Your task to perform on an android device: change keyboard looks Image 0: 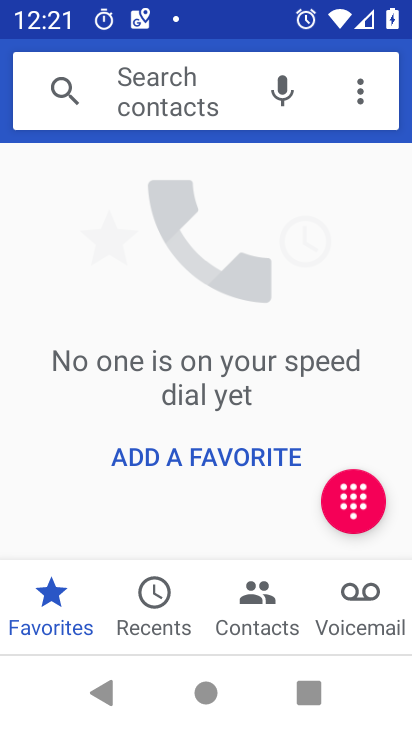
Step 0: press home button
Your task to perform on an android device: change keyboard looks Image 1: 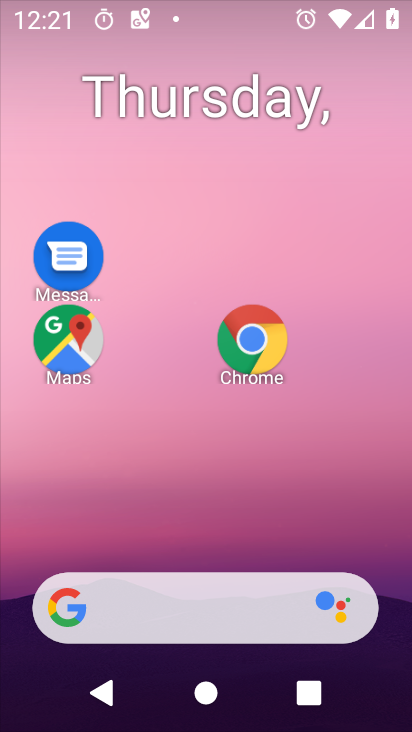
Step 1: drag from (198, 506) to (192, 59)
Your task to perform on an android device: change keyboard looks Image 2: 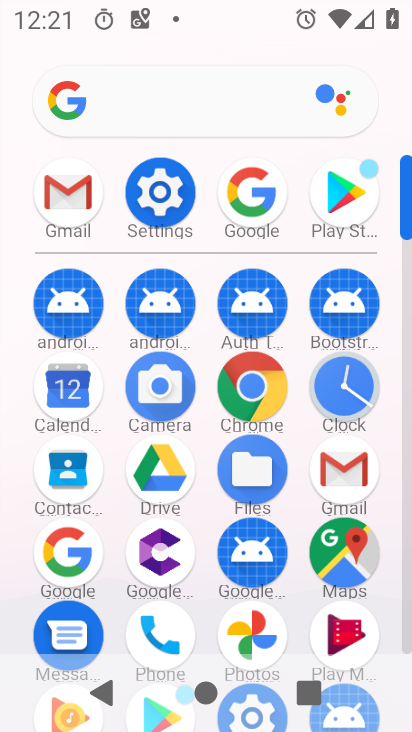
Step 2: click (141, 188)
Your task to perform on an android device: change keyboard looks Image 3: 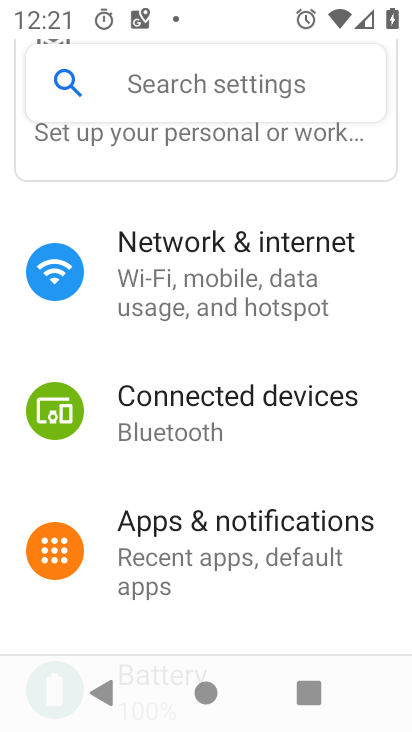
Step 3: drag from (275, 562) to (295, 35)
Your task to perform on an android device: change keyboard looks Image 4: 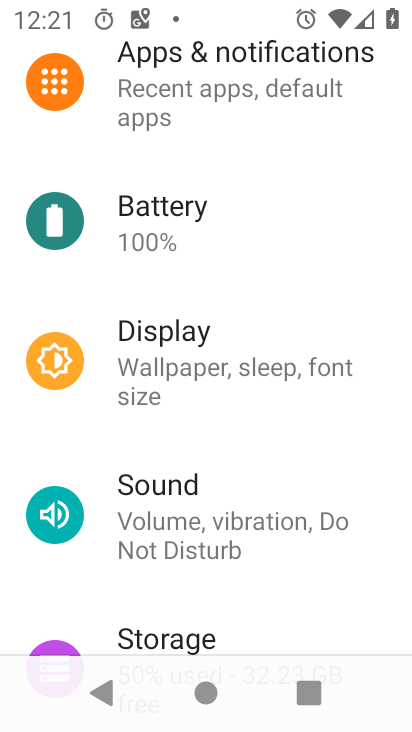
Step 4: drag from (274, 541) to (297, 24)
Your task to perform on an android device: change keyboard looks Image 5: 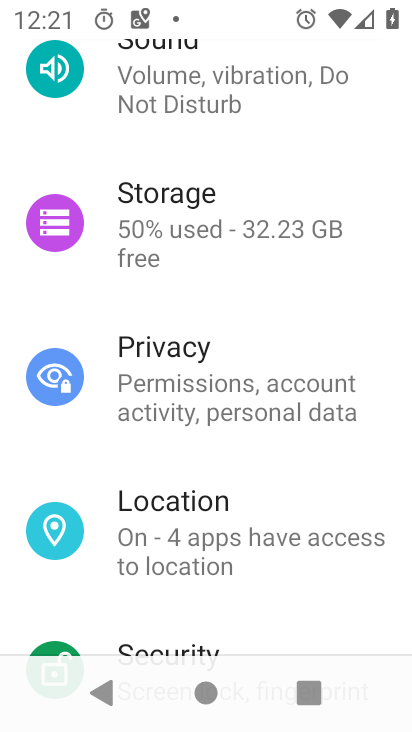
Step 5: drag from (235, 556) to (287, 97)
Your task to perform on an android device: change keyboard looks Image 6: 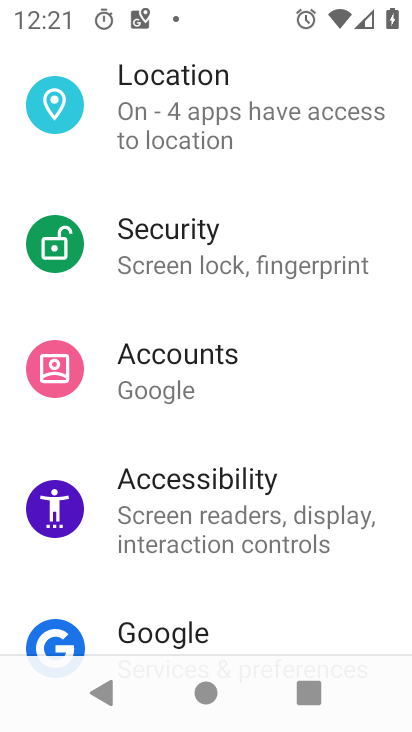
Step 6: drag from (229, 603) to (270, 107)
Your task to perform on an android device: change keyboard looks Image 7: 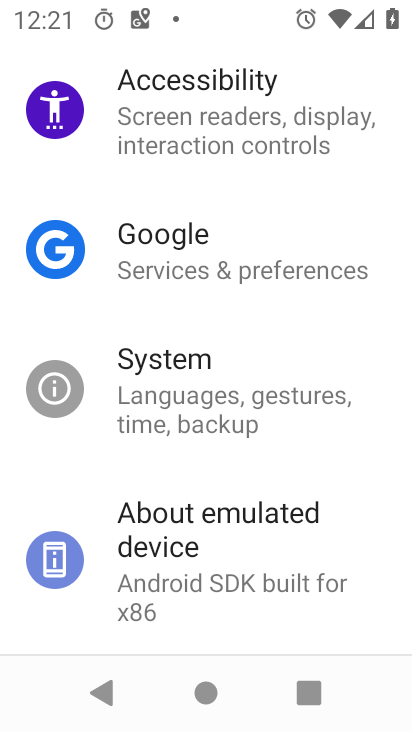
Step 7: click (210, 386)
Your task to perform on an android device: change keyboard looks Image 8: 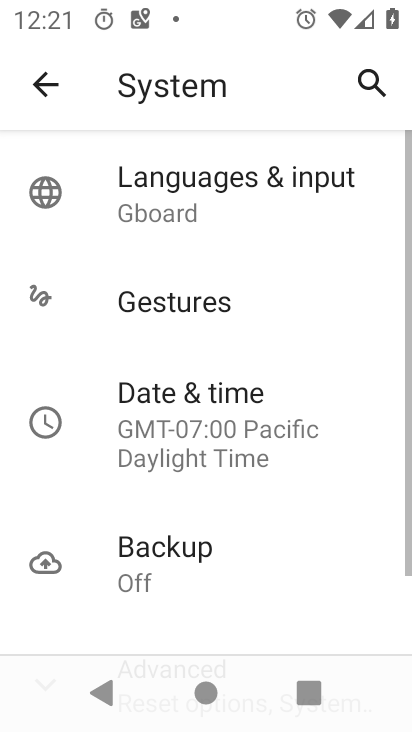
Step 8: click (207, 188)
Your task to perform on an android device: change keyboard looks Image 9: 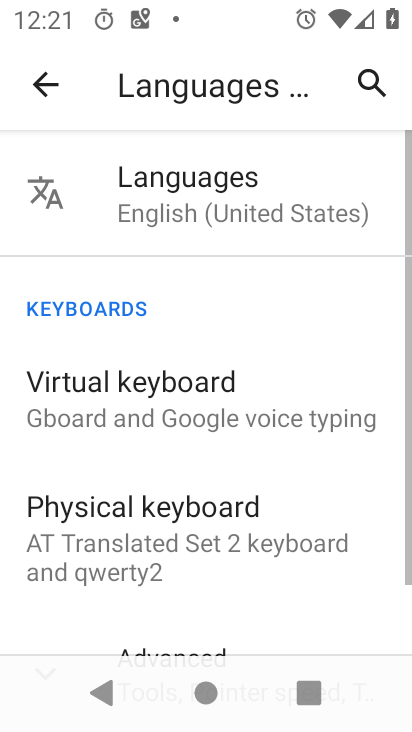
Step 9: click (114, 394)
Your task to perform on an android device: change keyboard looks Image 10: 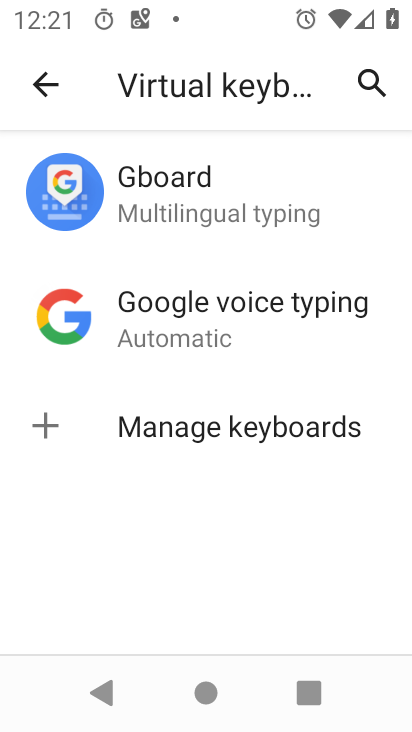
Step 10: click (140, 201)
Your task to perform on an android device: change keyboard looks Image 11: 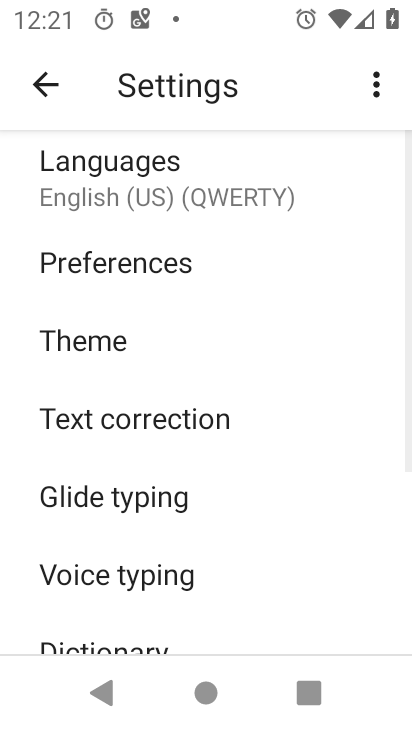
Step 11: click (116, 328)
Your task to perform on an android device: change keyboard looks Image 12: 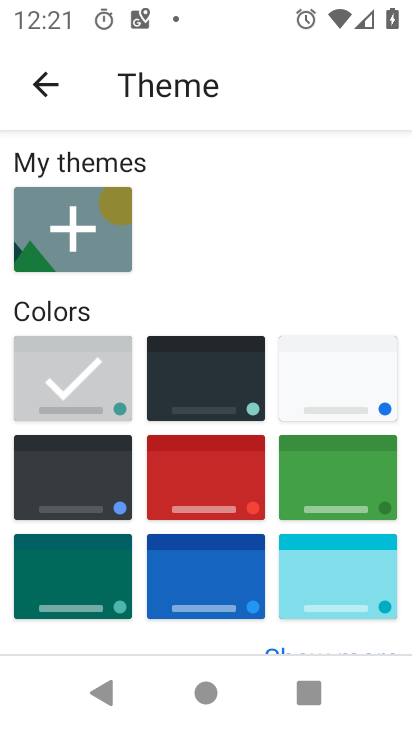
Step 12: click (223, 379)
Your task to perform on an android device: change keyboard looks Image 13: 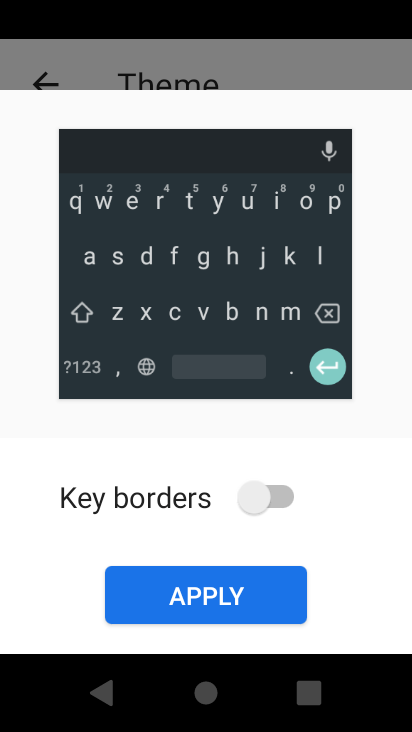
Step 13: click (218, 594)
Your task to perform on an android device: change keyboard looks Image 14: 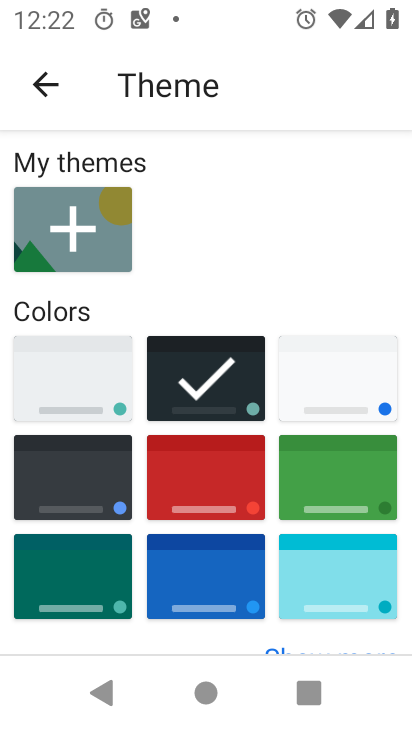
Step 14: task complete